Your task to perform on an android device: Open display settings Image 0: 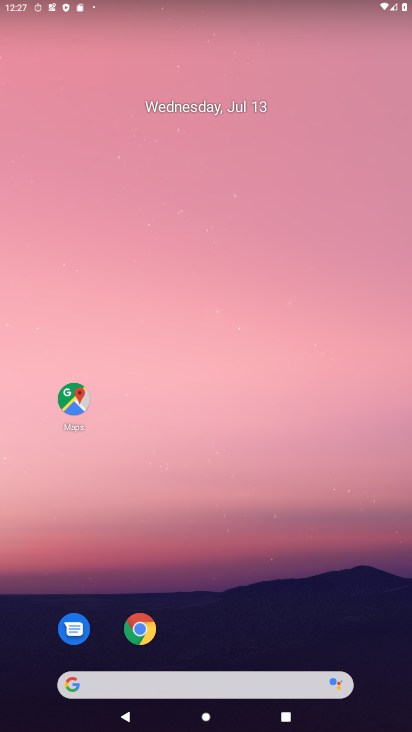
Step 0: drag from (209, 648) to (216, 210)
Your task to perform on an android device: Open display settings Image 1: 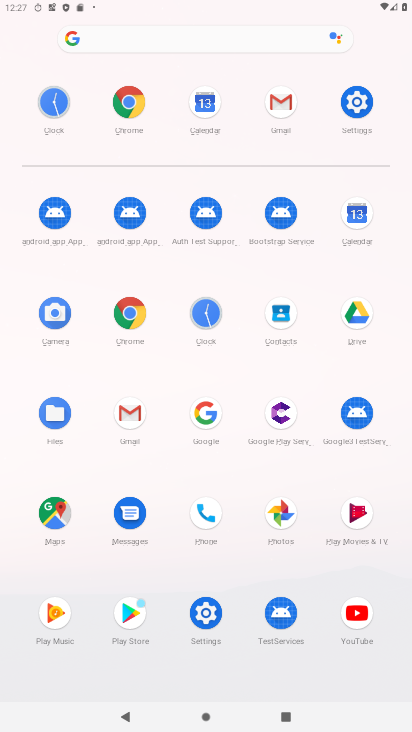
Step 1: click (344, 111)
Your task to perform on an android device: Open display settings Image 2: 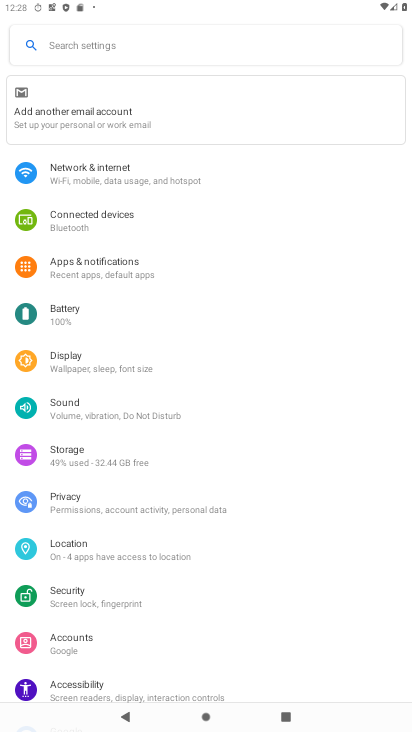
Step 2: click (99, 355)
Your task to perform on an android device: Open display settings Image 3: 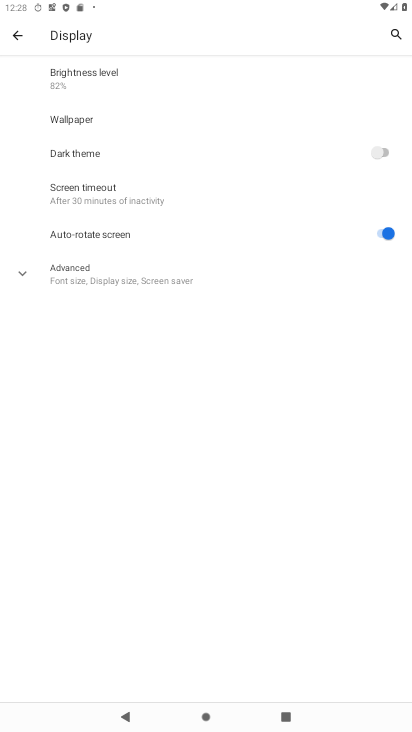
Step 3: task complete